Your task to perform on an android device: toggle improve location accuracy Image 0: 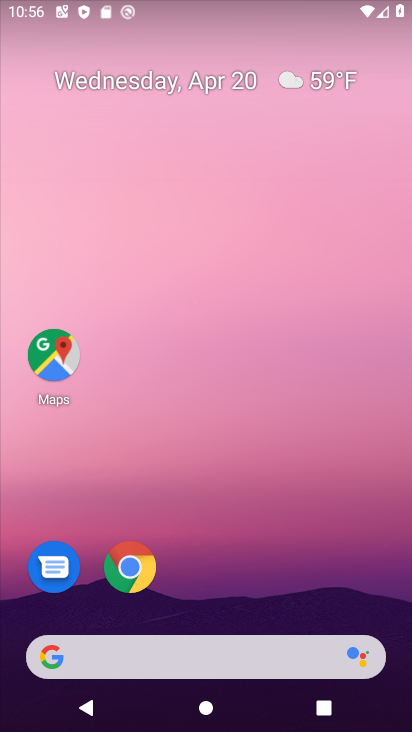
Step 0: drag from (272, 591) to (255, 81)
Your task to perform on an android device: toggle improve location accuracy Image 1: 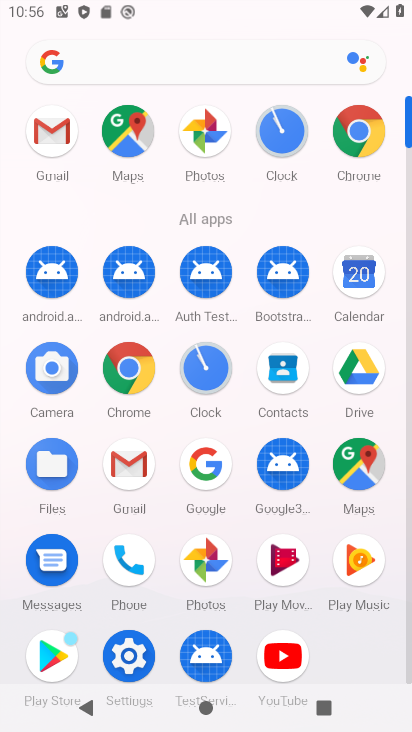
Step 1: click (109, 671)
Your task to perform on an android device: toggle improve location accuracy Image 2: 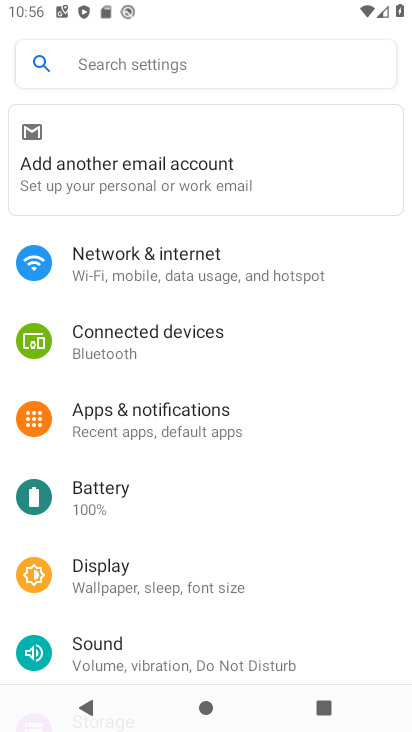
Step 2: drag from (99, 645) to (98, 567)
Your task to perform on an android device: toggle improve location accuracy Image 3: 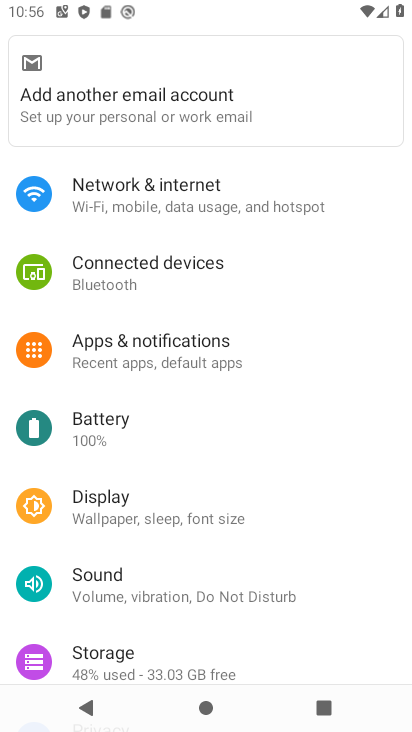
Step 3: drag from (92, 619) to (91, 555)
Your task to perform on an android device: toggle improve location accuracy Image 4: 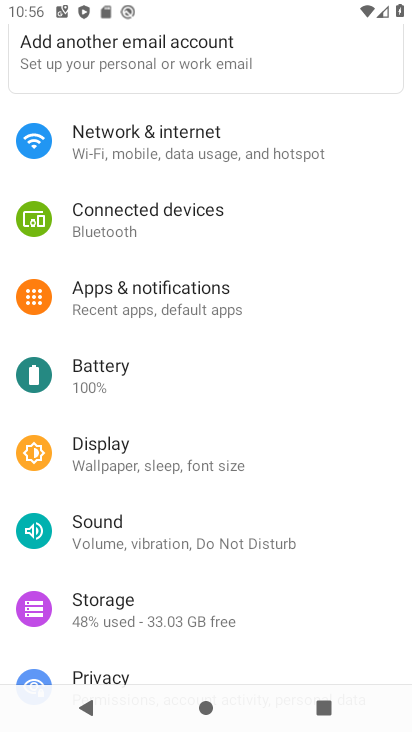
Step 4: drag from (117, 637) to (116, 552)
Your task to perform on an android device: toggle improve location accuracy Image 5: 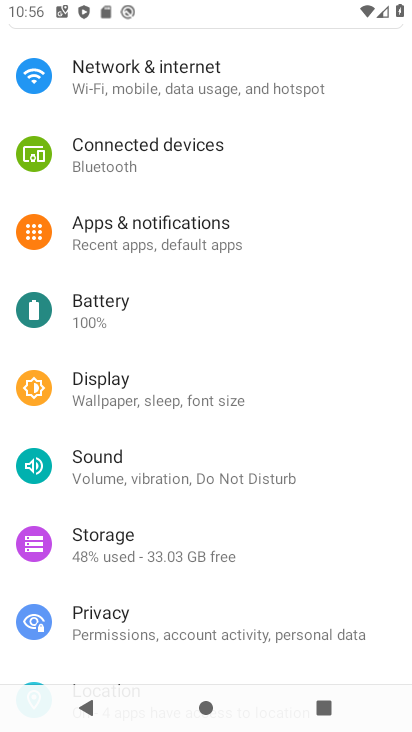
Step 5: drag from (142, 616) to (139, 547)
Your task to perform on an android device: toggle improve location accuracy Image 6: 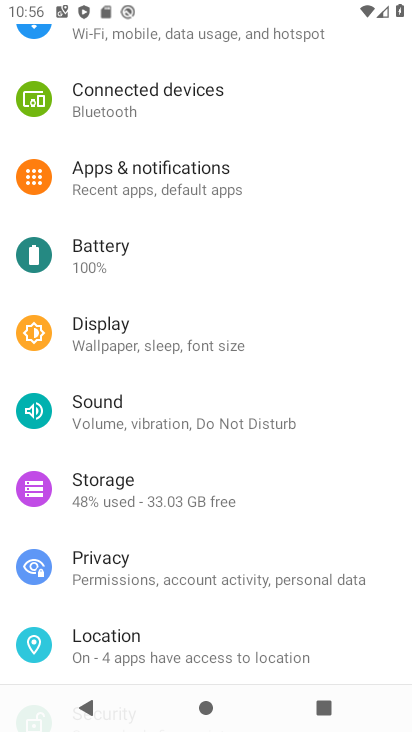
Step 6: click (112, 631)
Your task to perform on an android device: toggle improve location accuracy Image 7: 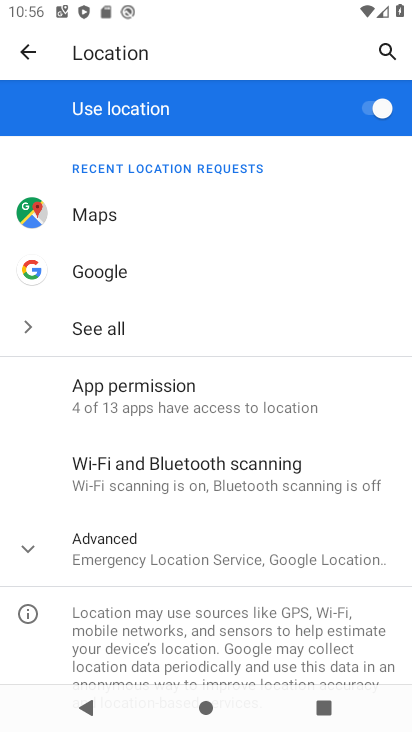
Step 7: click (184, 557)
Your task to perform on an android device: toggle improve location accuracy Image 8: 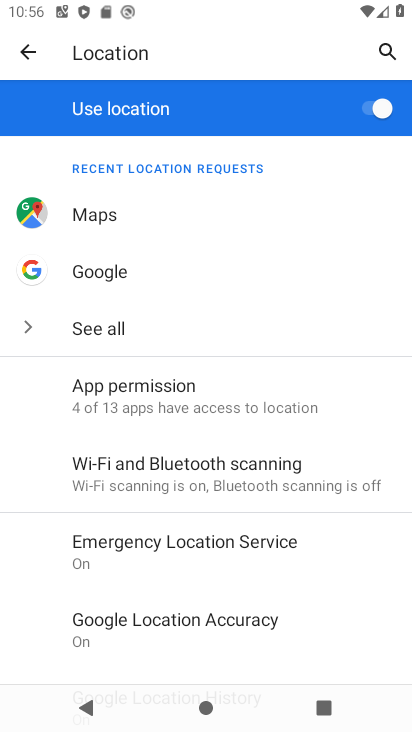
Step 8: drag from (192, 577) to (196, 478)
Your task to perform on an android device: toggle improve location accuracy Image 9: 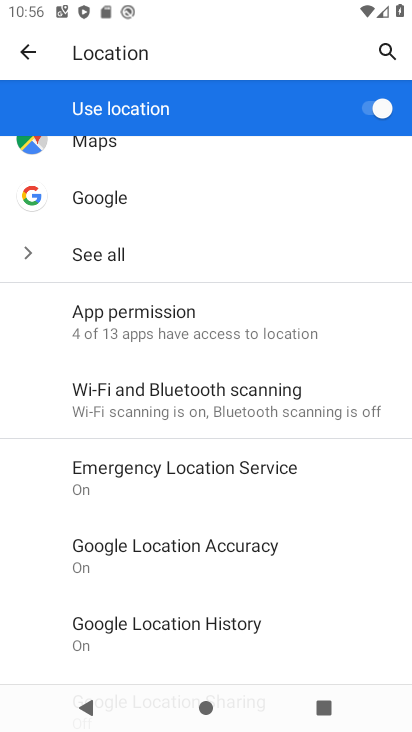
Step 9: click (173, 545)
Your task to perform on an android device: toggle improve location accuracy Image 10: 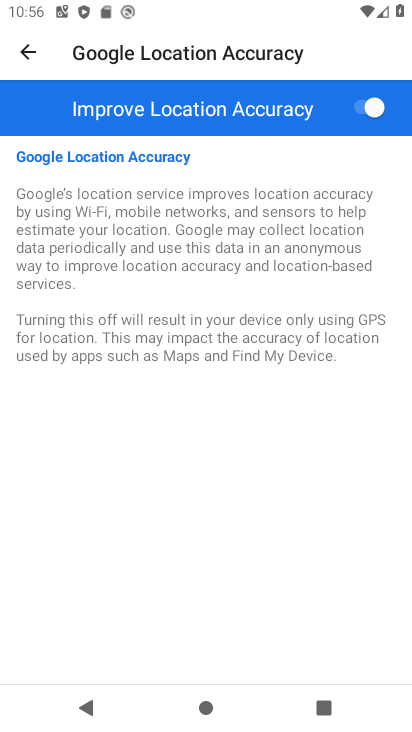
Step 10: click (347, 111)
Your task to perform on an android device: toggle improve location accuracy Image 11: 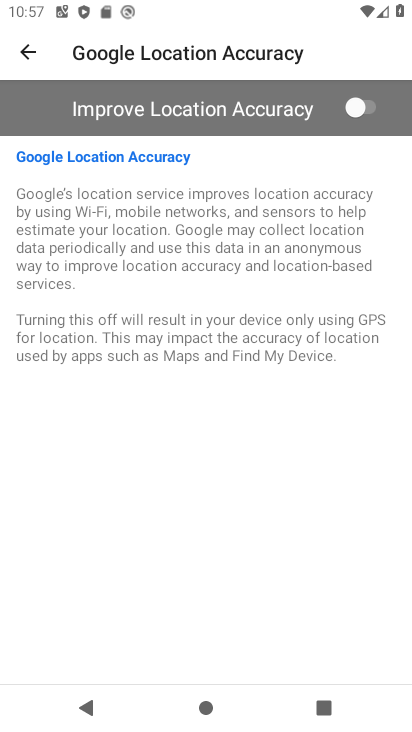
Step 11: task complete